Your task to perform on an android device: change the clock style Image 0: 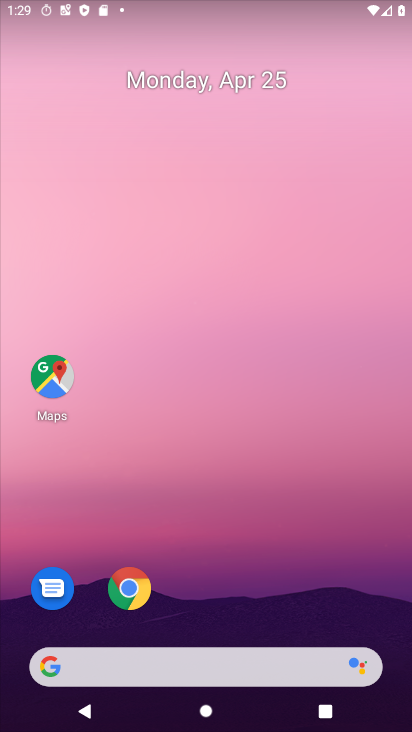
Step 0: drag from (222, 604) to (242, 191)
Your task to perform on an android device: change the clock style Image 1: 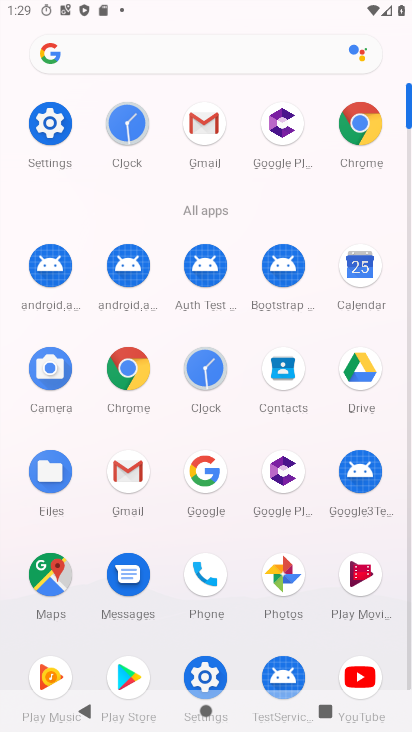
Step 1: click (195, 370)
Your task to perform on an android device: change the clock style Image 2: 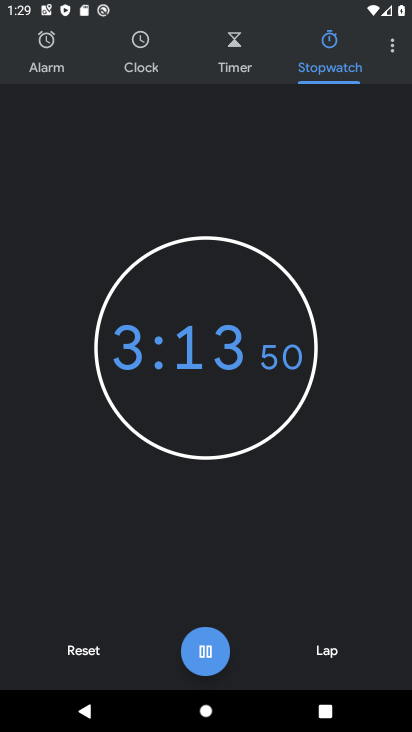
Step 2: click (385, 50)
Your task to perform on an android device: change the clock style Image 3: 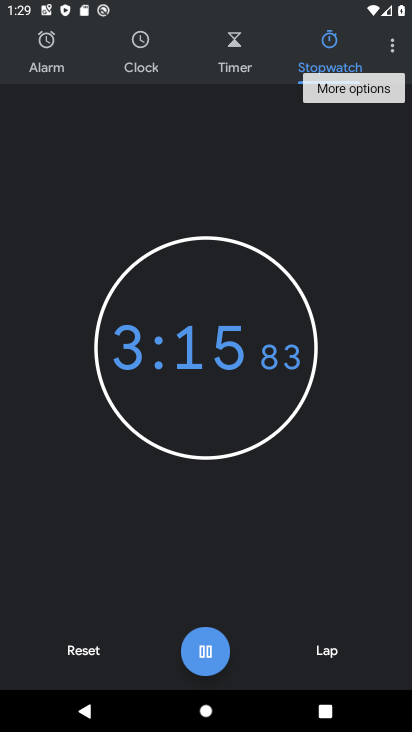
Step 3: click (394, 55)
Your task to perform on an android device: change the clock style Image 4: 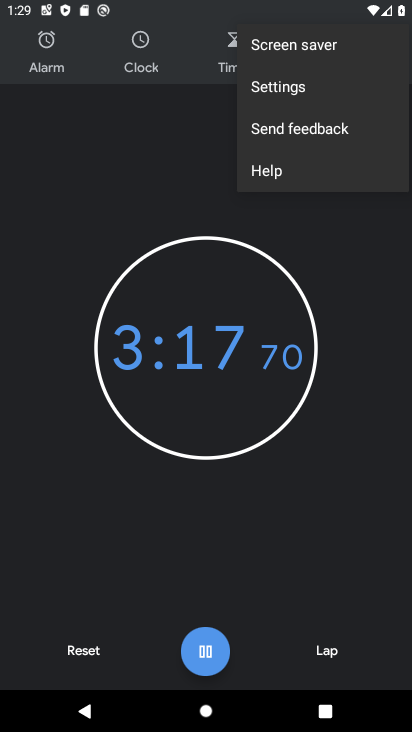
Step 4: click (310, 83)
Your task to perform on an android device: change the clock style Image 5: 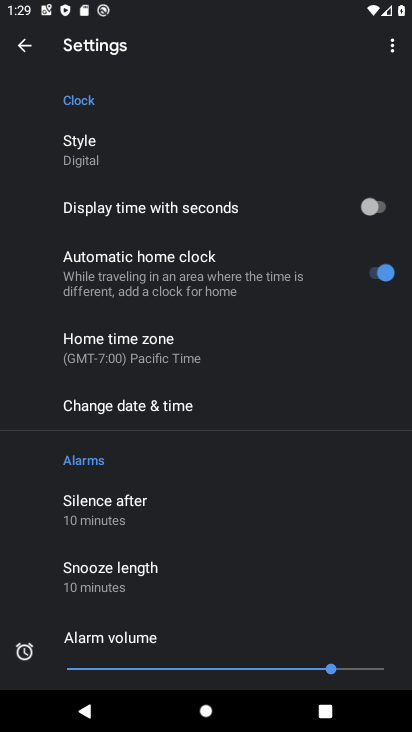
Step 5: click (155, 163)
Your task to perform on an android device: change the clock style Image 6: 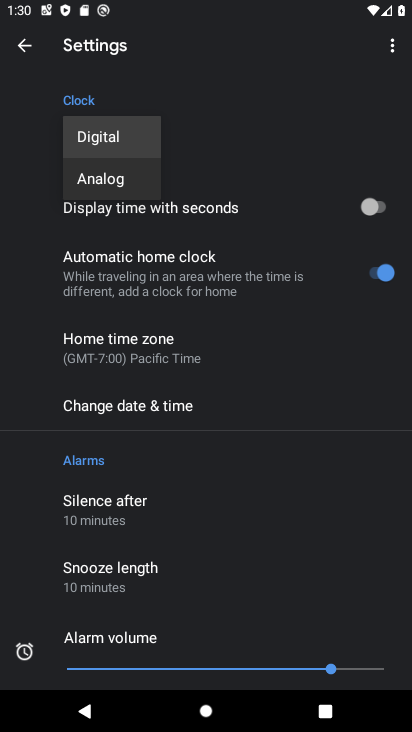
Step 6: click (104, 186)
Your task to perform on an android device: change the clock style Image 7: 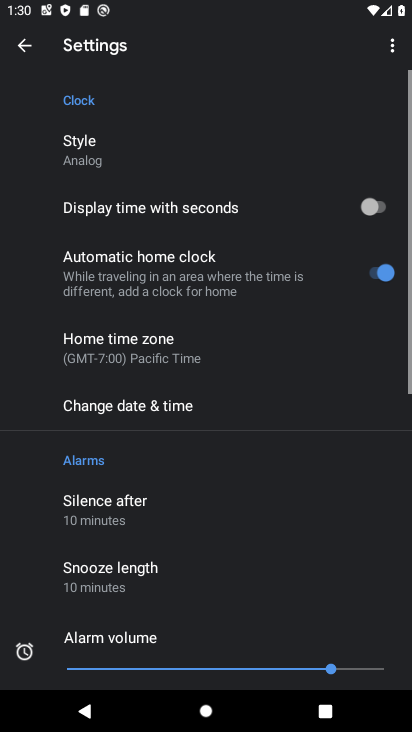
Step 7: task complete